Your task to perform on an android device: Open accessibility settings Image 0: 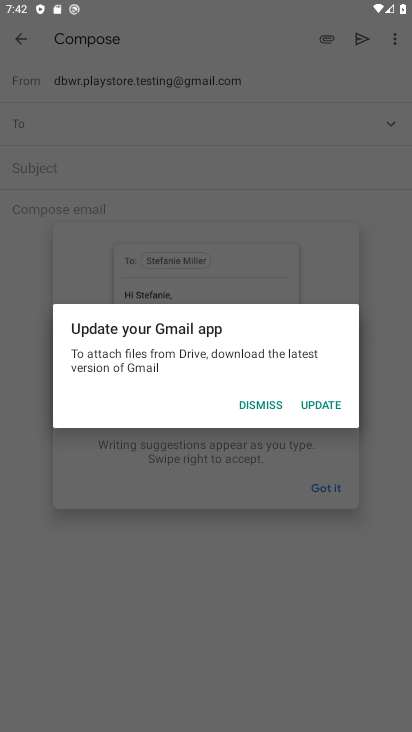
Step 0: press home button
Your task to perform on an android device: Open accessibility settings Image 1: 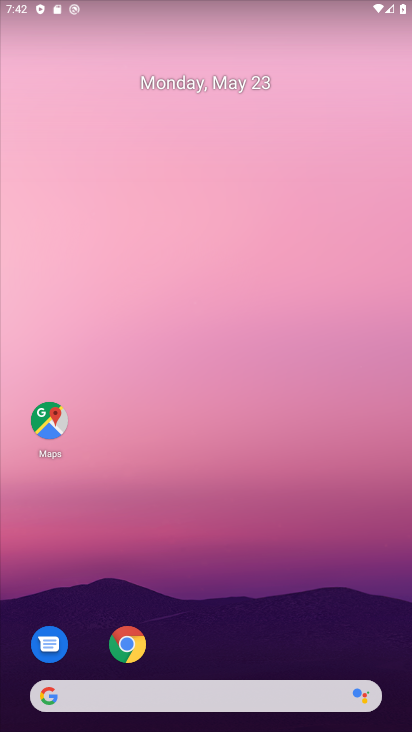
Step 1: drag from (22, 631) to (316, 130)
Your task to perform on an android device: Open accessibility settings Image 2: 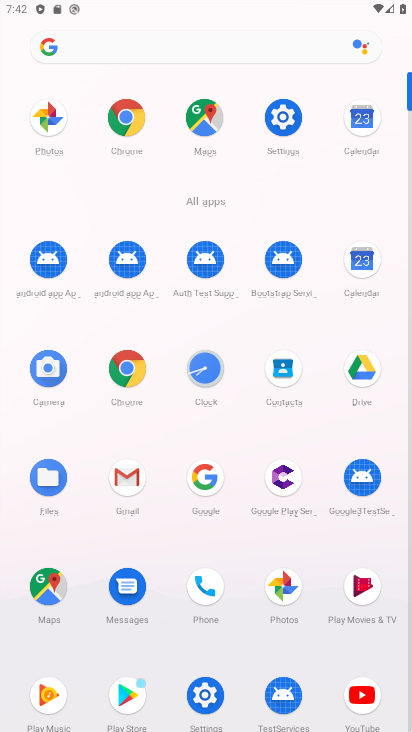
Step 2: click (124, 117)
Your task to perform on an android device: Open accessibility settings Image 3: 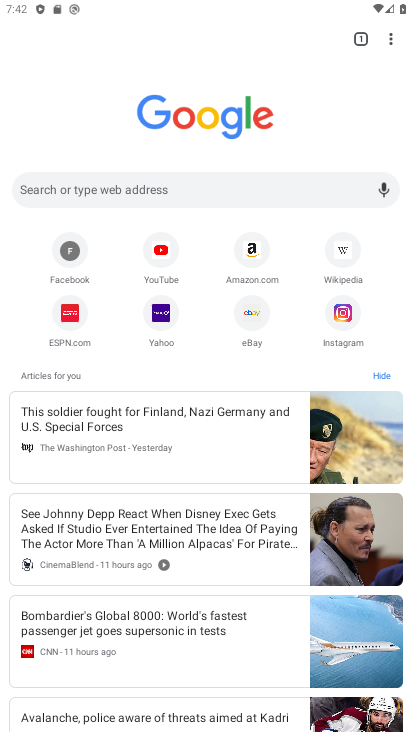
Step 3: press home button
Your task to perform on an android device: Open accessibility settings Image 4: 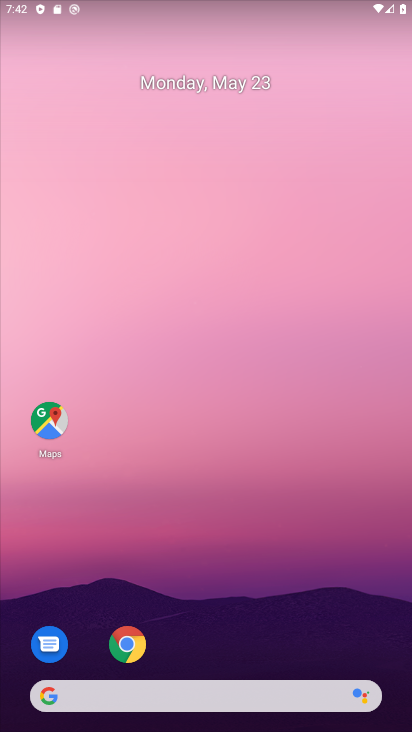
Step 4: press home button
Your task to perform on an android device: Open accessibility settings Image 5: 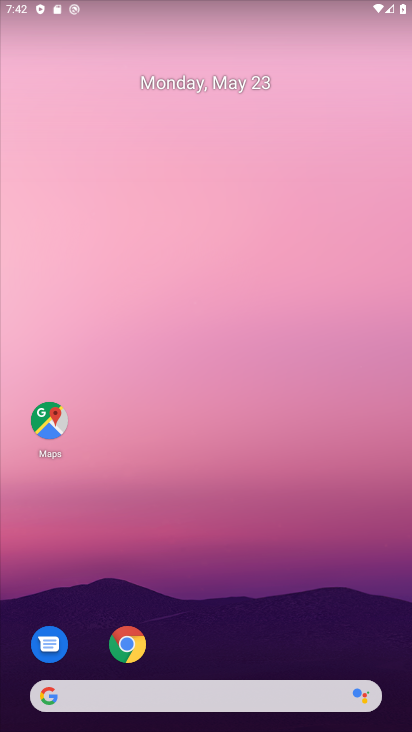
Step 5: drag from (411, 712) to (19, 29)
Your task to perform on an android device: Open accessibility settings Image 6: 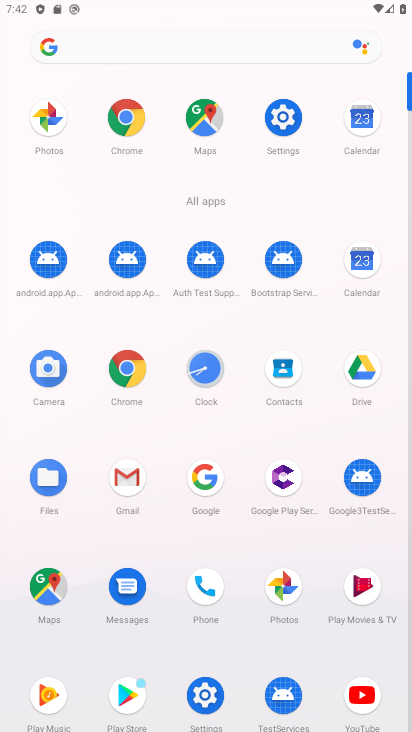
Step 6: drag from (372, 512) to (104, 487)
Your task to perform on an android device: Open accessibility settings Image 7: 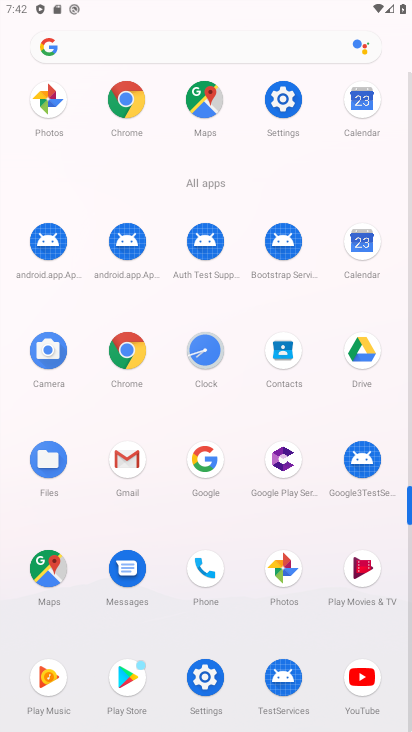
Step 7: drag from (188, 397) to (381, 363)
Your task to perform on an android device: Open accessibility settings Image 8: 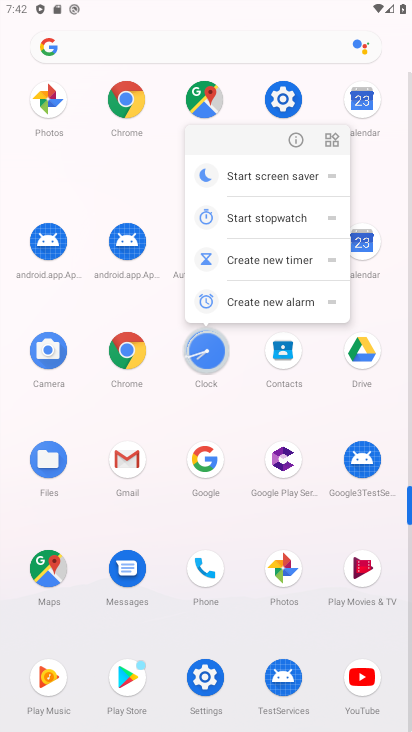
Step 8: drag from (227, 432) to (407, 2)
Your task to perform on an android device: Open accessibility settings Image 9: 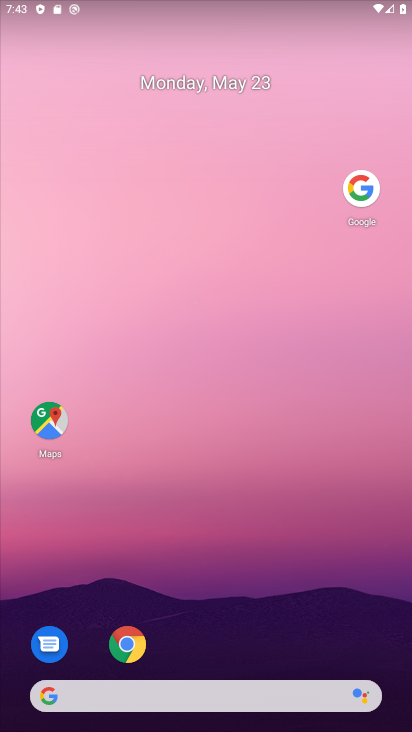
Step 9: drag from (37, 730) to (245, 222)
Your task to perform on an android device: Open accessibility settings Image 10: 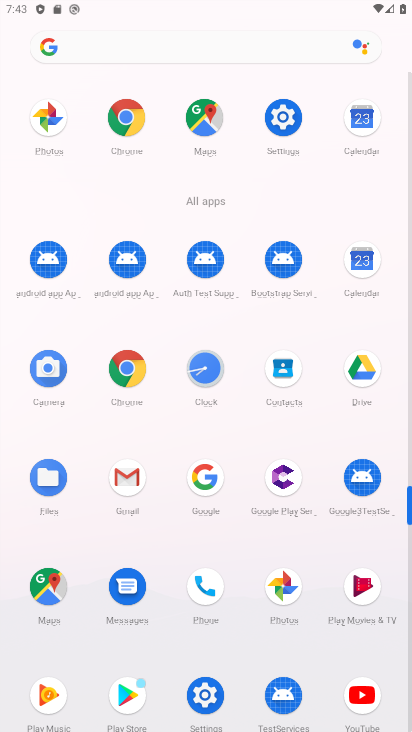
Step 10: click (193, 690)
Your task to perform on an android device: Open accessibility settings Image 11: 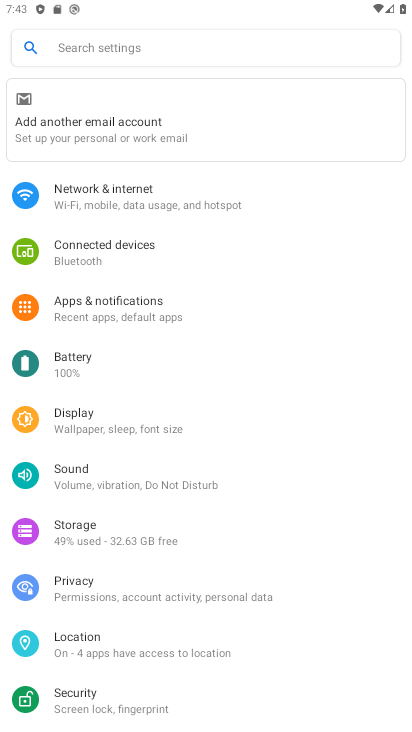
Step 11: drag from (145, 665) to (244, 167)
Your task to perform on an android device: Open accessibility settings Image 12: 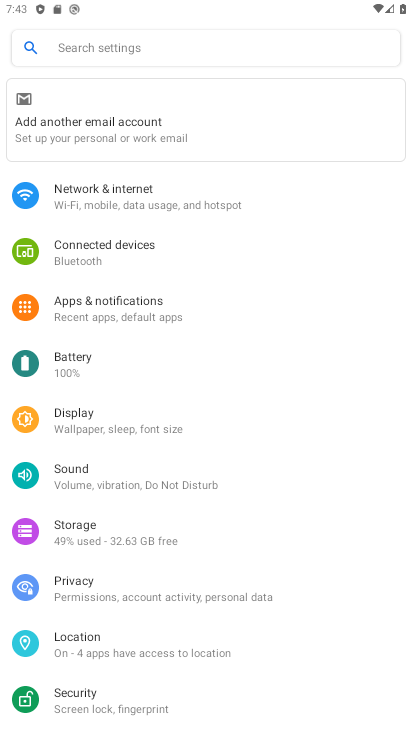
Step 12: drag from (24, 583) to (220, 138)
Your task to perform on an android device: Open accessibility settings Image 13: 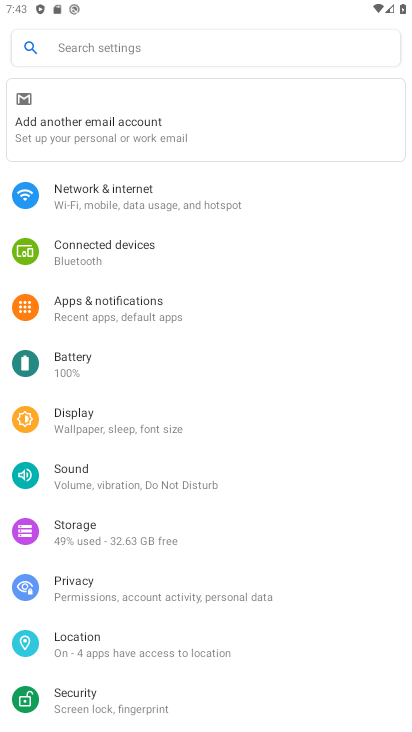
Step 13: drag from (105, 689) to (327, 109)
Your task to perform on an android device: Open accessibility settings Image 14: 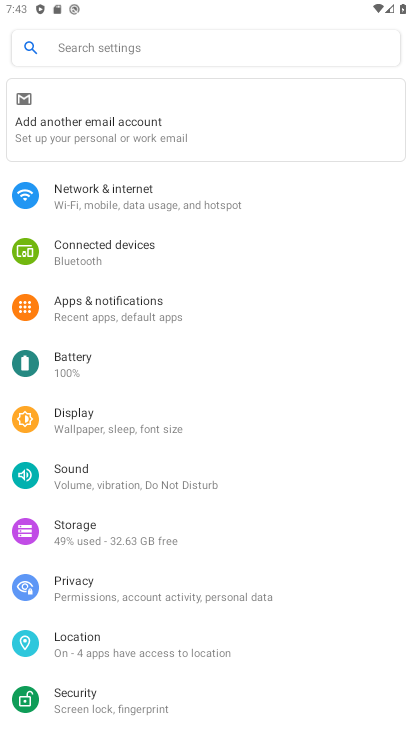
Step 14: drag from (39, 577) to (194, 189)
Your task to perform on an android device: Open accessibility settings Image 15: 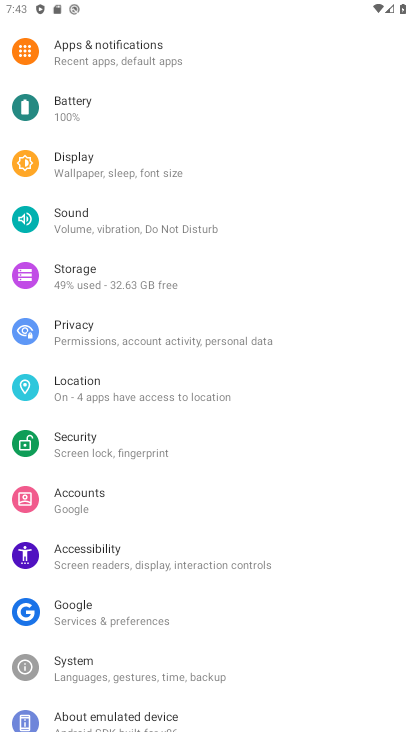
Step 15: click (75, 561)
Your task to perform on an android device: Open accessibility settings Image 16: 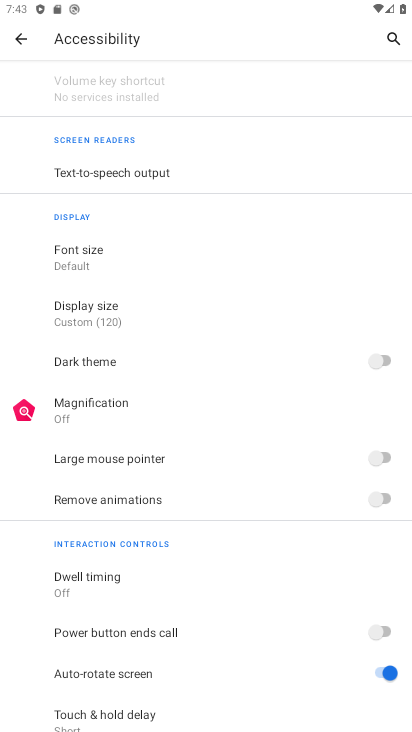
Step 16: task complete